Your task to perform on an android device: Open Chrome and go to settings Image 0: 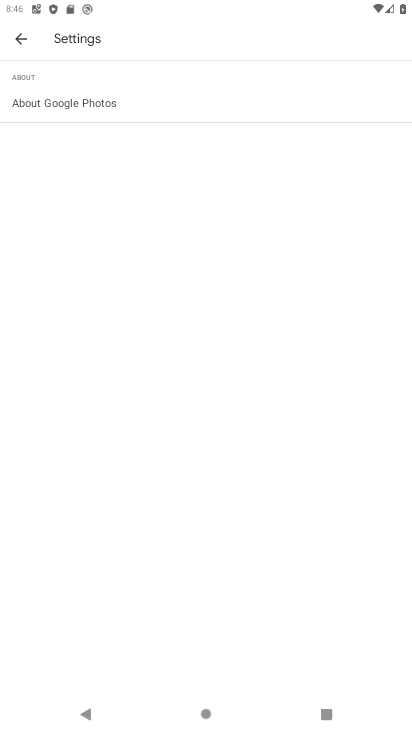
Step 0: press home button
Your task to perform on an android device: Open Chrome and go to settings Image 1: 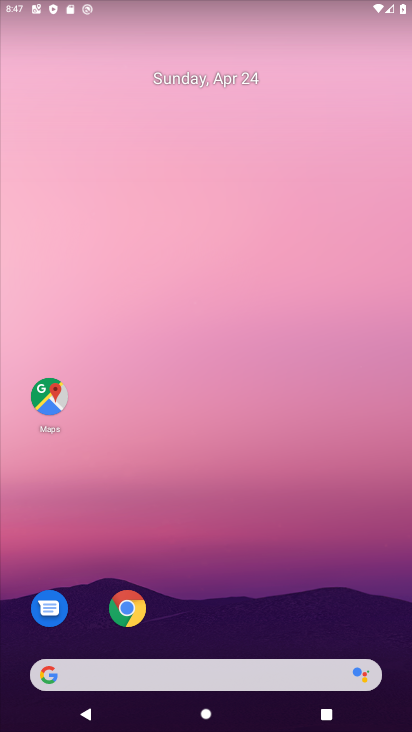
Step 1: drag from (245, 681) to (265, 4)
Your task to perform on an android device: Open Chrome and go to settings Image 2: 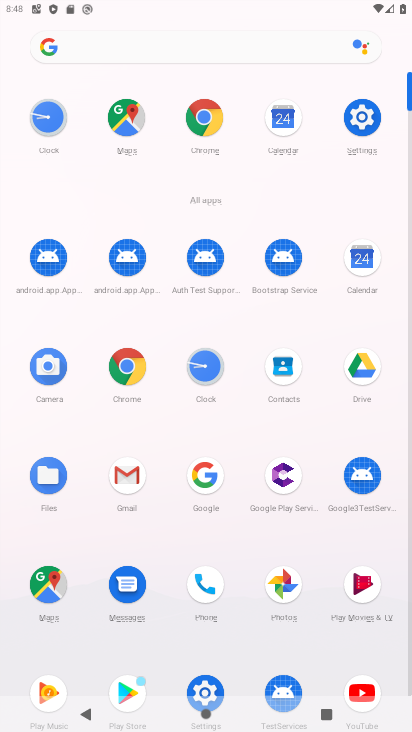
Step 2: drag from (270, 5) to (366, 108)
Your task to perform on an android device: Open Chrome and go to settings Image 3: 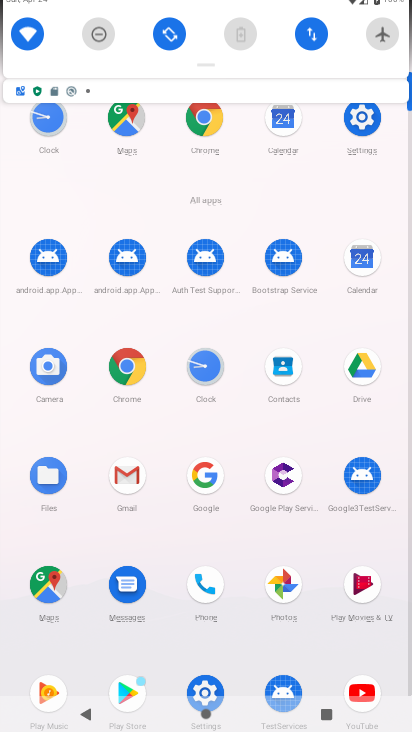
Step 3: click (366, 108)
Your task to perform on an android device: Open Chrome and go to settings Image 4: 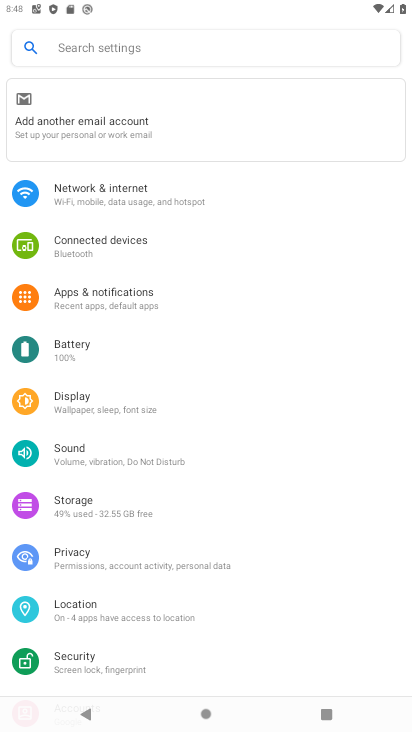
Step 4: press home button
Your task to perform on an android device: Open Chrome and go to settings Image 5: 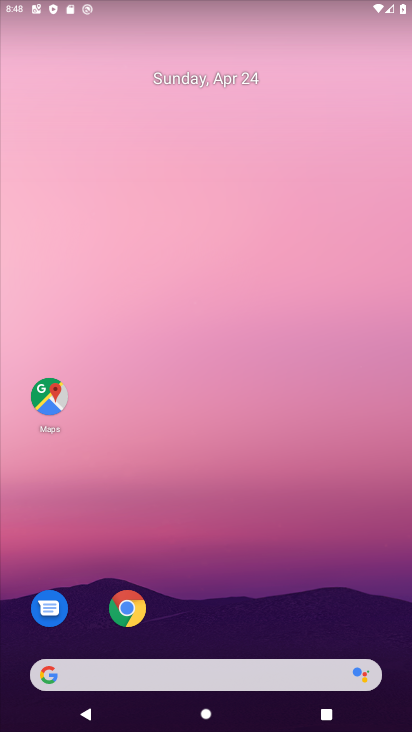
Step 5: drag from (247, 701) to (337, 83)
Your task to perform on an android device: Open Chrome and go to settings Image 6: 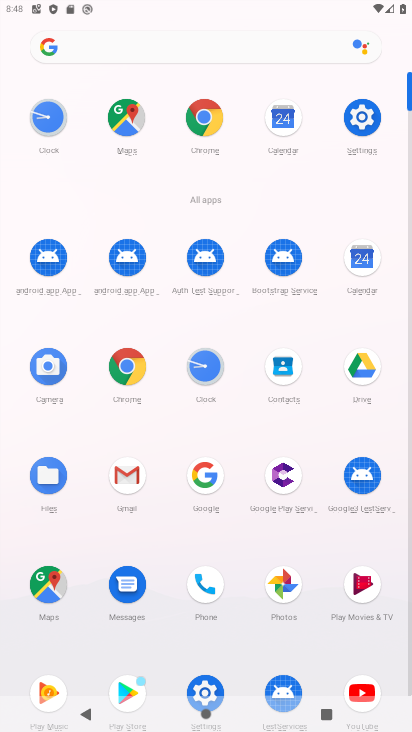
Step 6: click (200, 126)
Your task to perform on an android device: Open Chrome and go to settings Image 7: 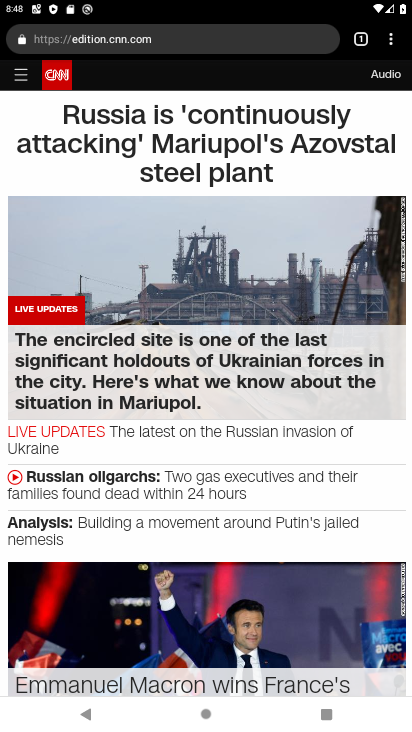
Step 7: click (390, 51)
Your task to perform on an android device: Open Chrome and go to settings Image 8: 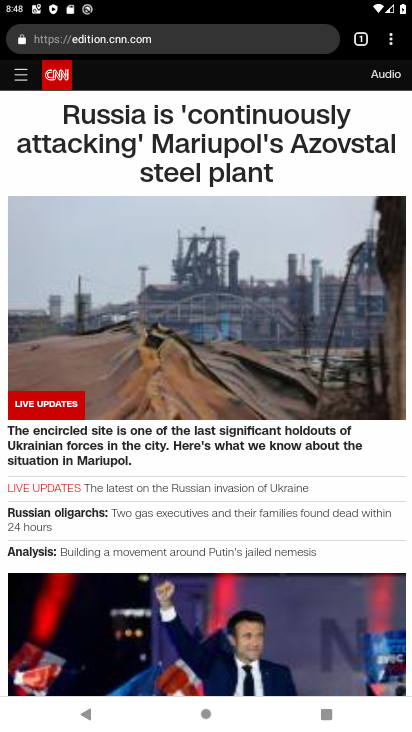
Step 8: click (391, 45)
Your task to perform on an android device: Open Chrome and go to settings Image 9: 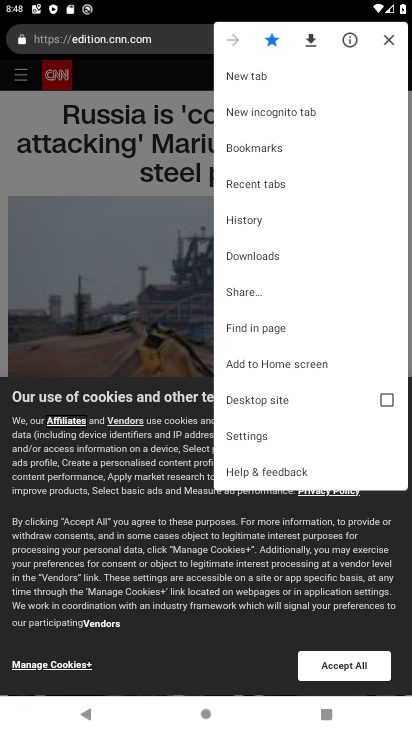
Step 9: click (247, 440)
Your task to perform on an android device: Open Chrome and go to settings Image 10: 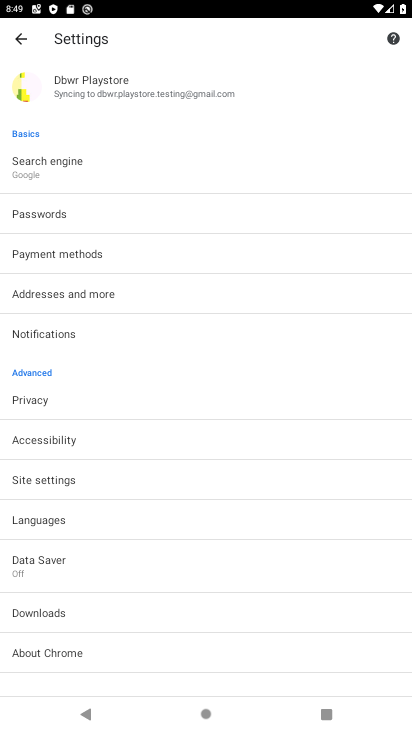
Step 10: task complete